Your task to perform on an android device: check google app version Image 0: 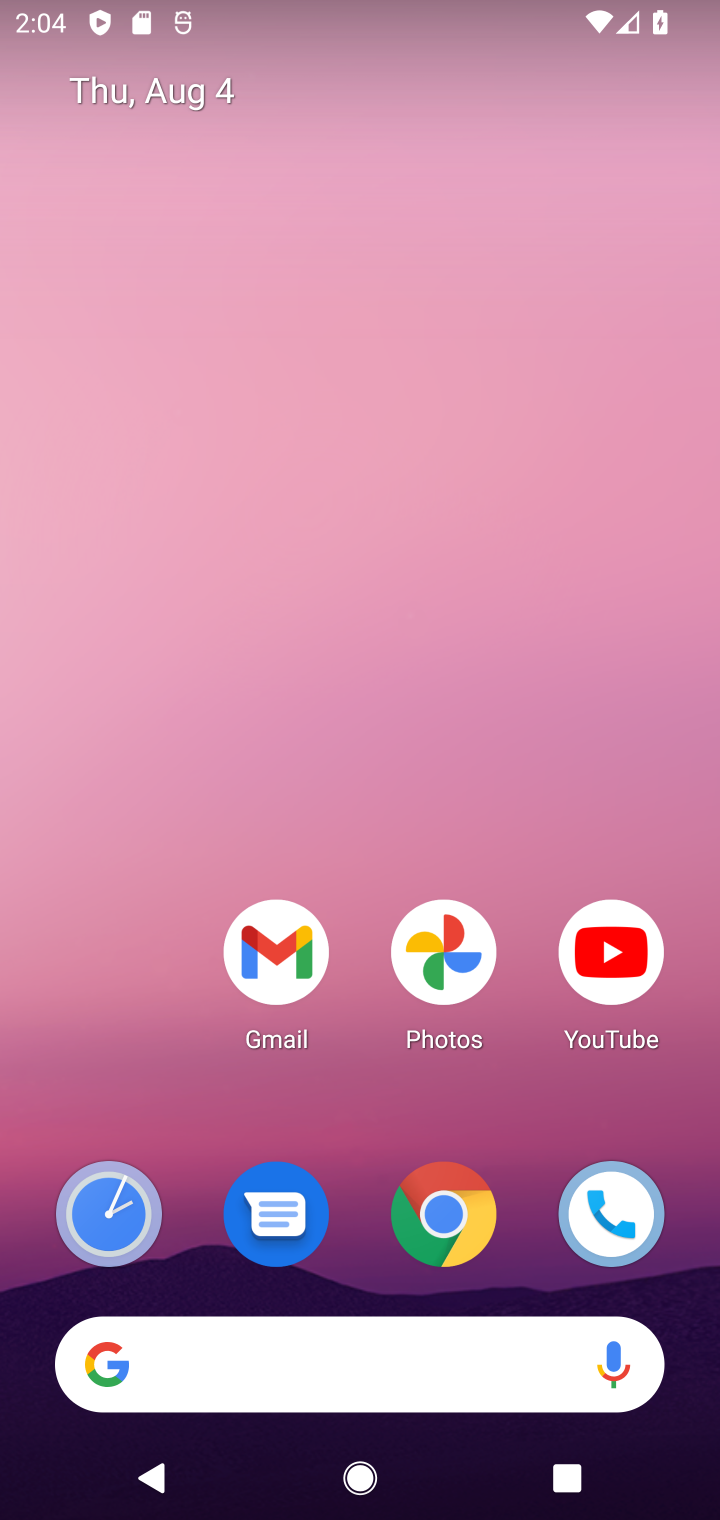
Step 0: drag from (521, 718) to (205, 0)
Your task to perform on an android device: check google app version Image 1: 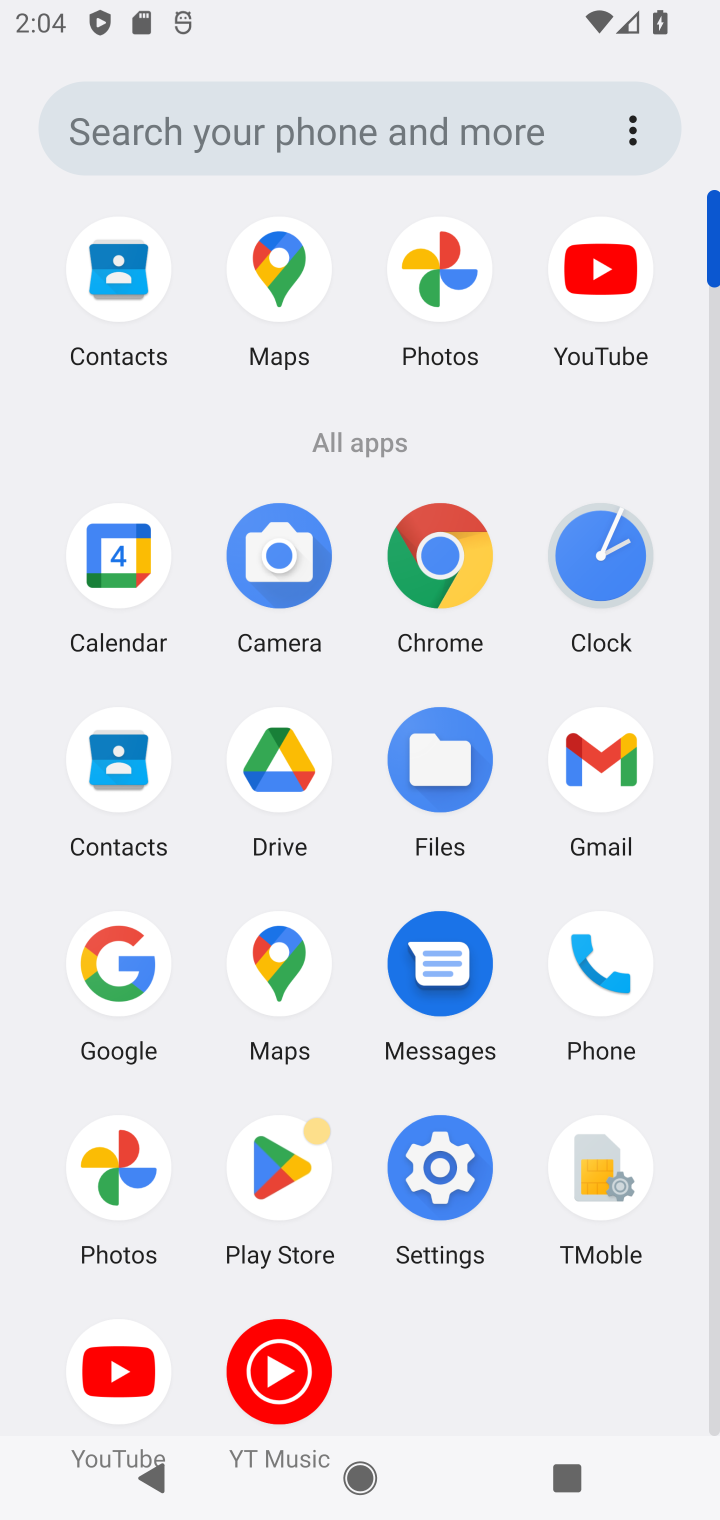
Step 1: click (143, 981)
Your task to perform on an android device: check google app version Image 2: 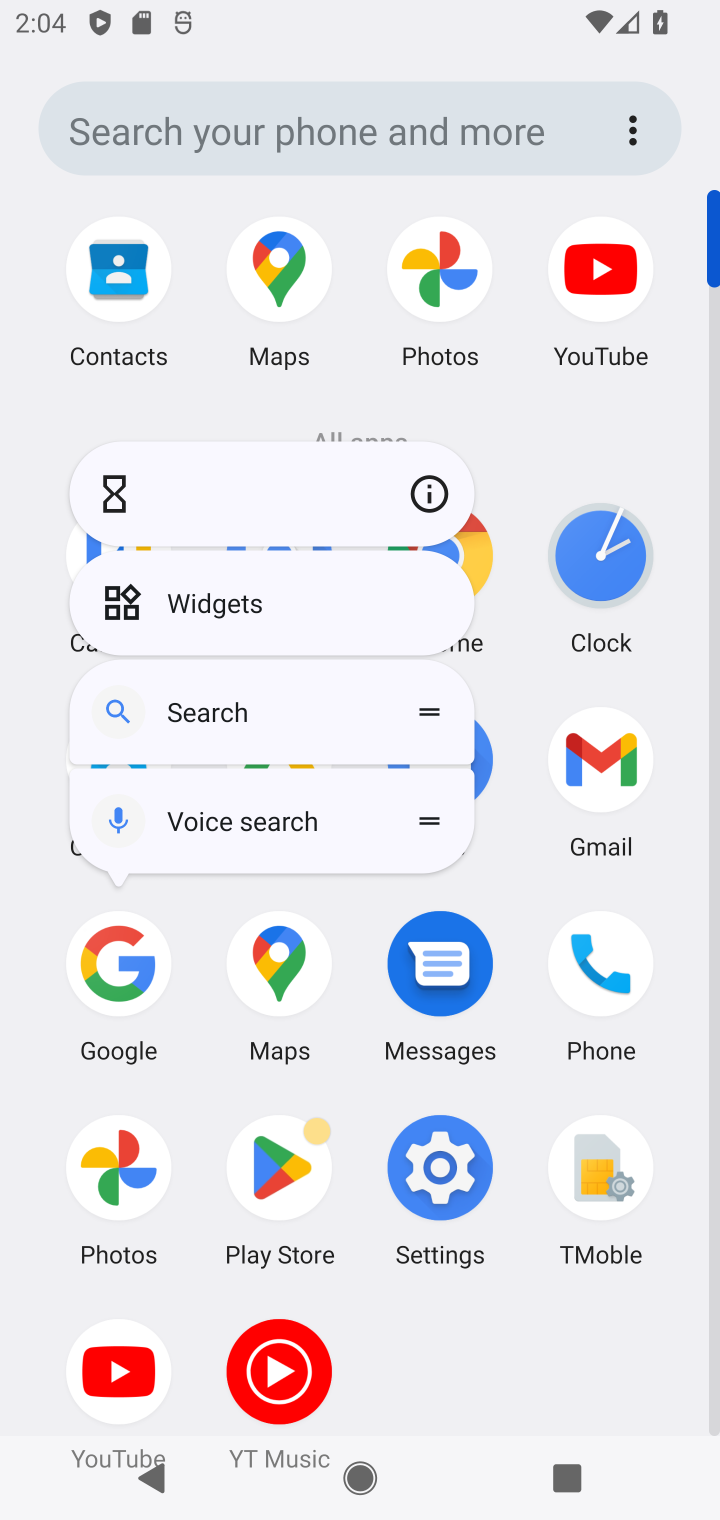
Step 2: click (435, 487)
Your task to perform on an android device: check google app version Image 3: 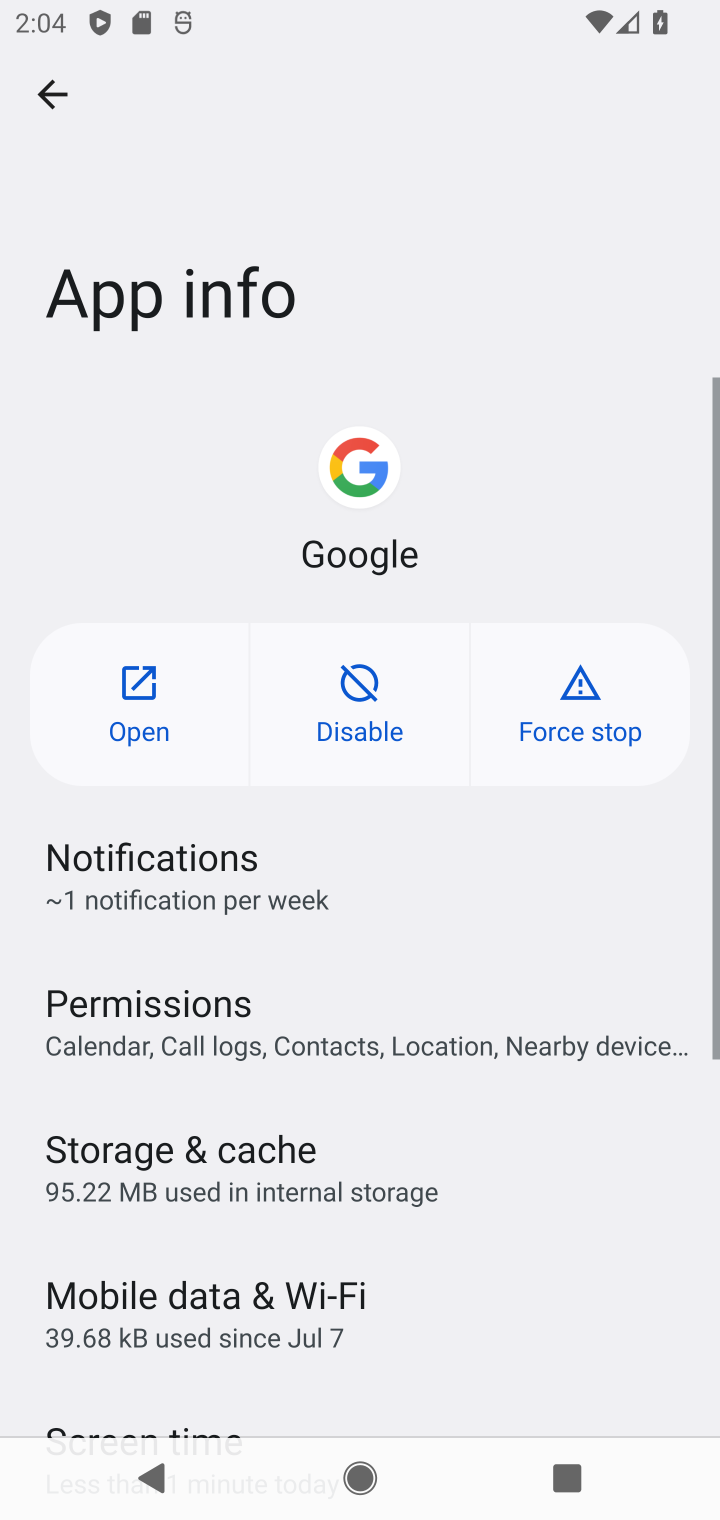
Step 3: task complete